Your task to perform on an android device: turn vacation reply on in the gmail app Image 0: 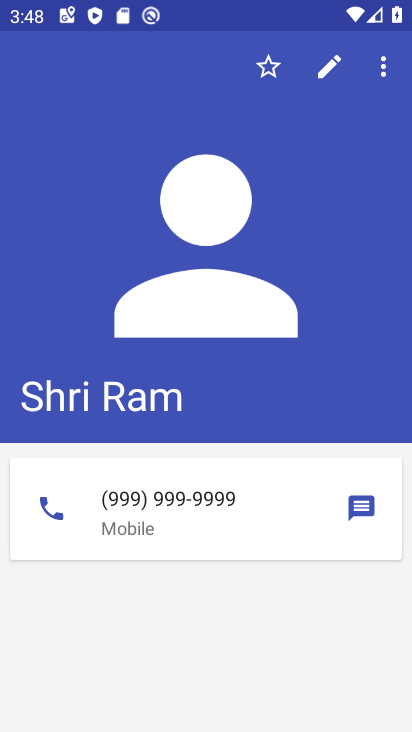
Step 0: press home button
Your task to perform on an android device: turn vacation reply on in the gmail app Image 1: 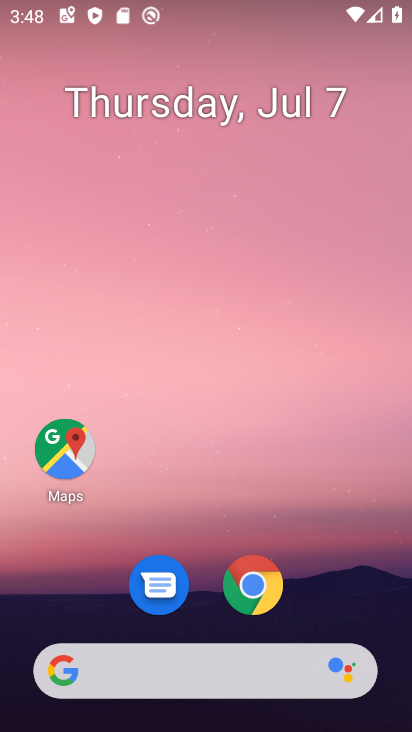
Step 1: drag from (193, 491) to (223, 44)
Your task to perform on an android device: turn vacation reply on in the gmail app Image 2: 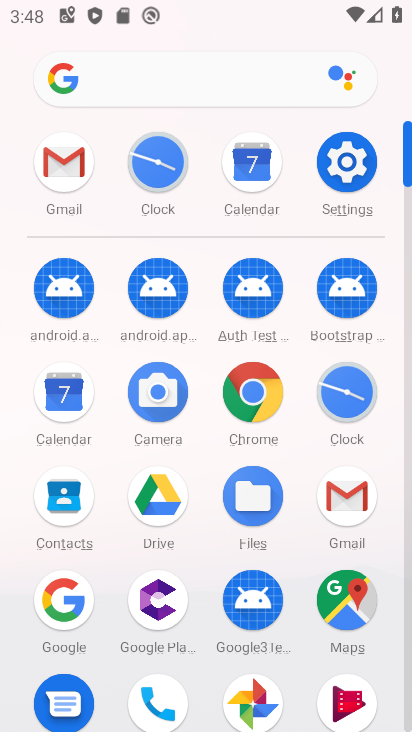
Step 2: click (59, 165)
Your task to perform on an android device: turn vacation reply on in the gmail app Image 3: 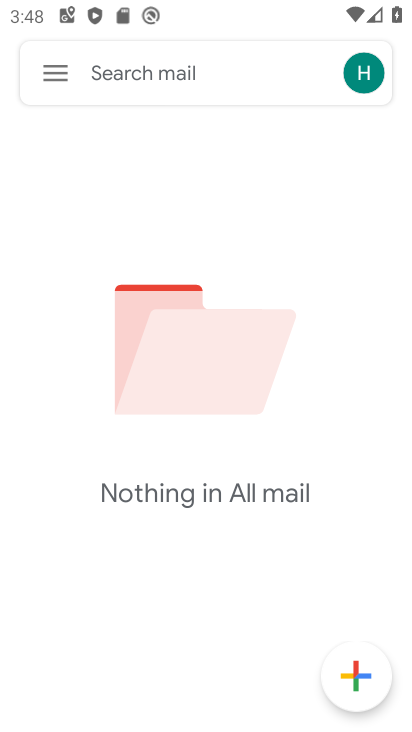
Step 3: click (61, 79)
Your task to perform on an android device: turn vacation reply on in the gmail app Image 4: 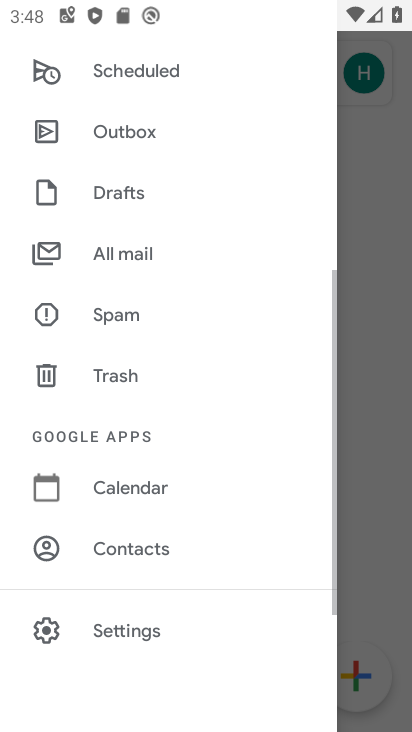
Step 4: click (99, 621)
Your task to perform on an android device: turn vacation reply on in the gmail app Image 5: 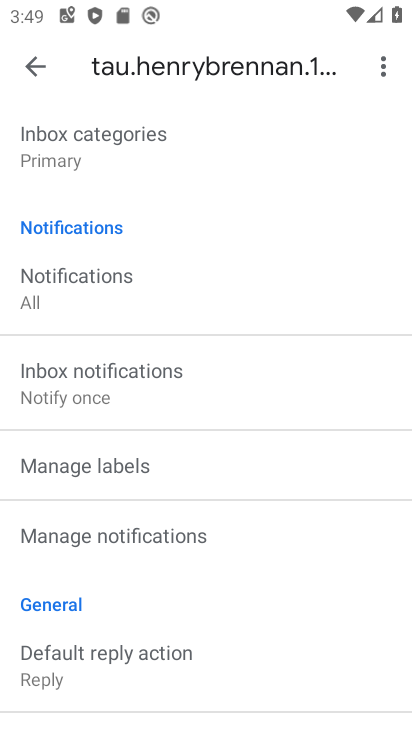
Step 5: drag from (198, 581) to (168, 167)
Your task to perform on an android device: turn vacation reply on in the gmail app Image 6: 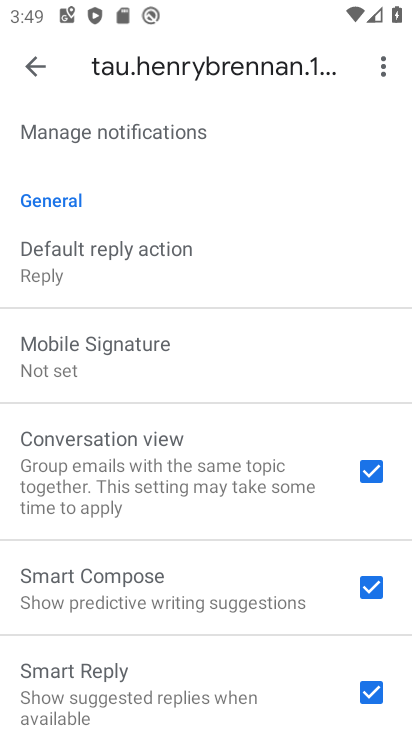
Step 6: drag from (171, 632) to (153, 225)
Your task to perform on an android device: turn vacation reply on in the gmail app Image 7: 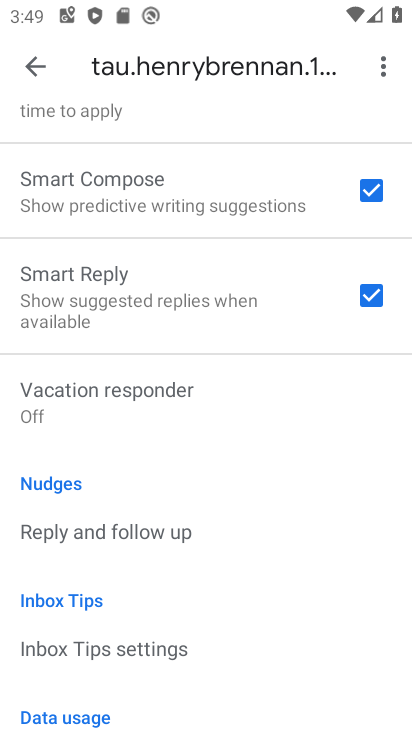
Step 7: click (173, 387)
Your task to perform on an android device: turn vacation reply on in the gmail app Image 8: 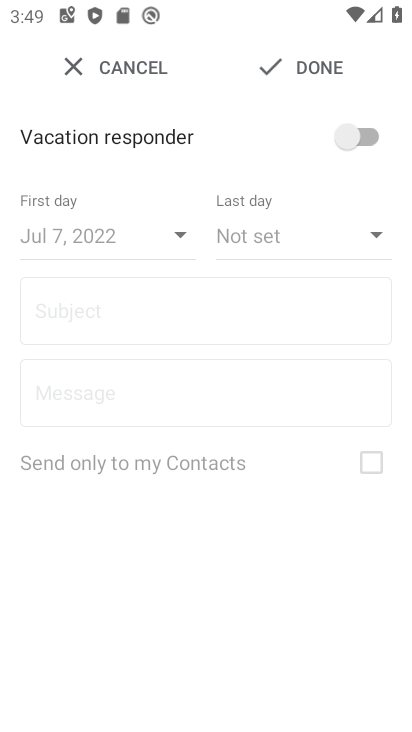
Step 8: click (354, 128)
Your task to perform on an android device: turn vacation reply on in the gmail app Image 9: 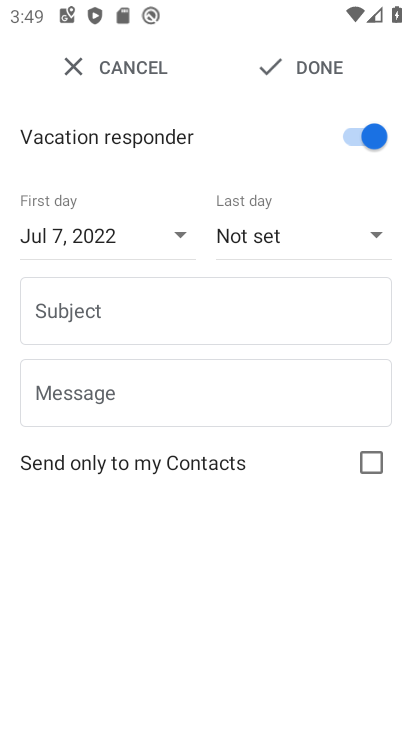
Step 9: task complete